Your task to perform on an android device: check battery use Image 0: 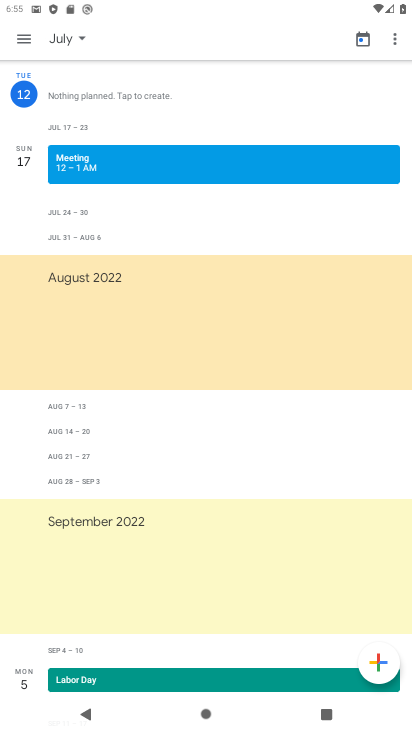
Step 0: drag from (270, 558) to (221, 138)
Your task to perform on an android device: check battery use Image 1: 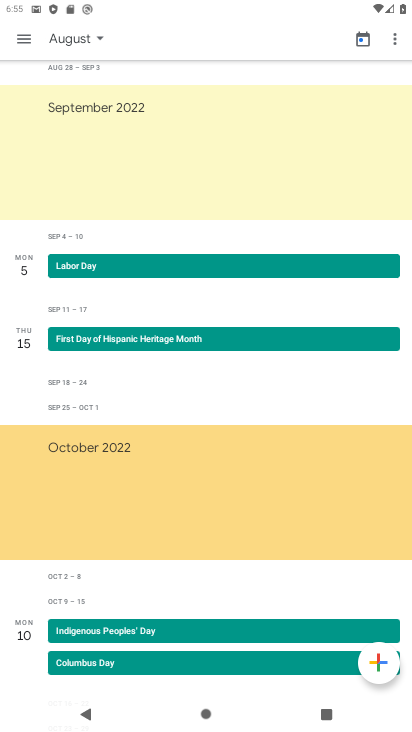
Step 1: press home button
Your task to perform on an android device: check battery use Image 2: 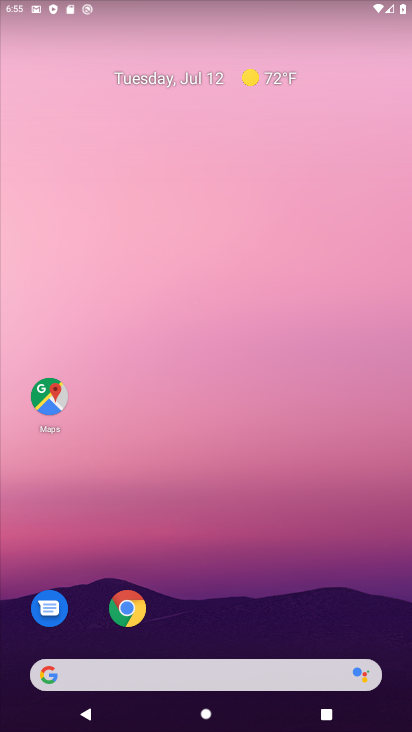
Step 2: click (120, 15)
Your task to perform on an android device: check battery use Image 3: 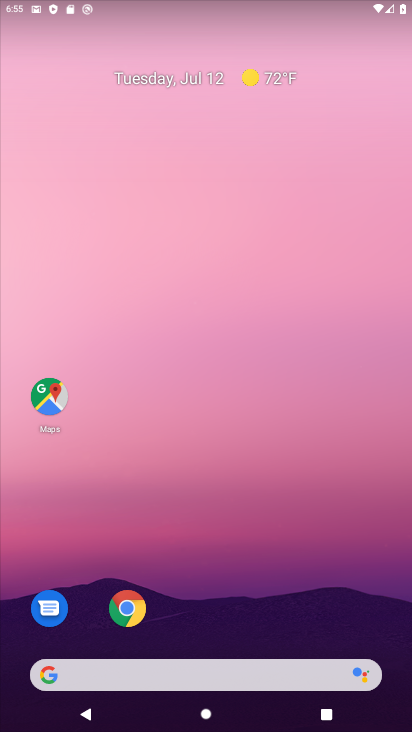
Step 3: drag from (228, 521) to (206, 89)
Your task to perform on an android device: check battery use Image 4: 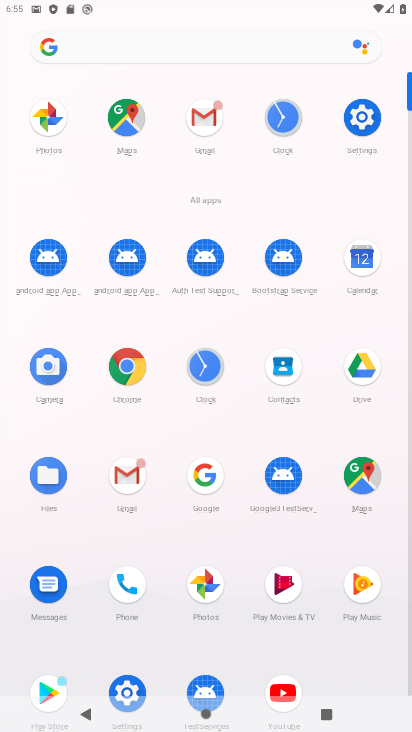
Step 4: click (363, 117)
Your task to perform on an android device: check battery use Image 5: 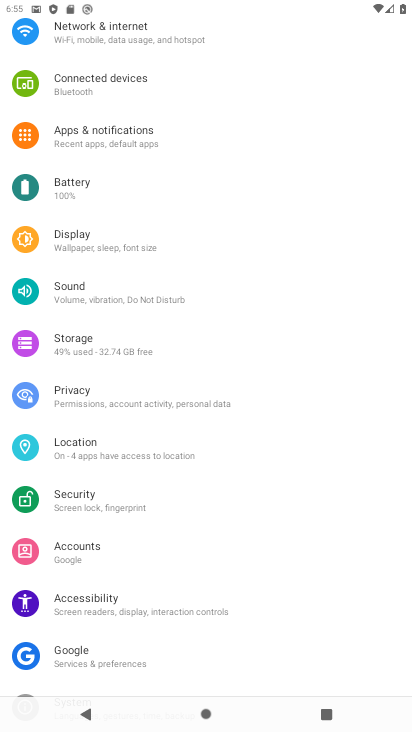
Step 5: click (60, 185)
Your task to perform on an android device: check battery use Image 6: 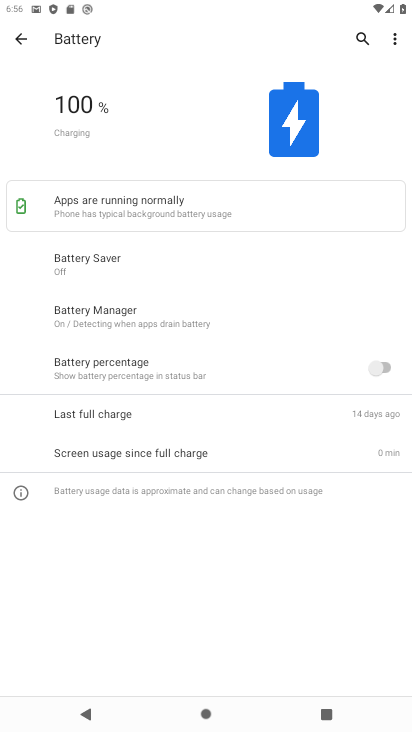
Step 6: task complete